Your task to perform on an android device: change notifications settings Image 0: 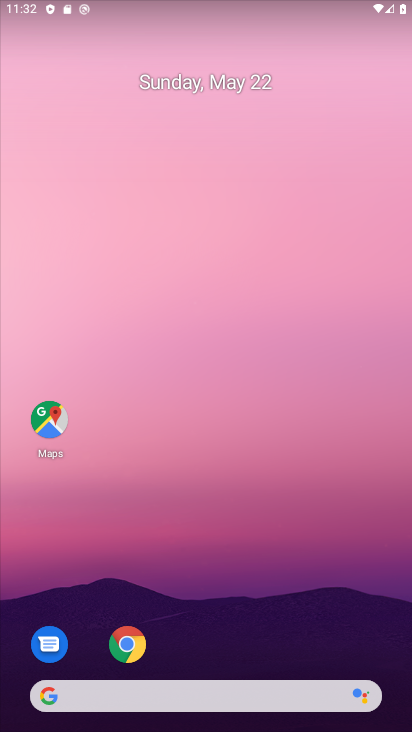
Step 0: drag from (344, 638) to (343, 1)
Your task to perform on an android device: change notifications settings Image 1: 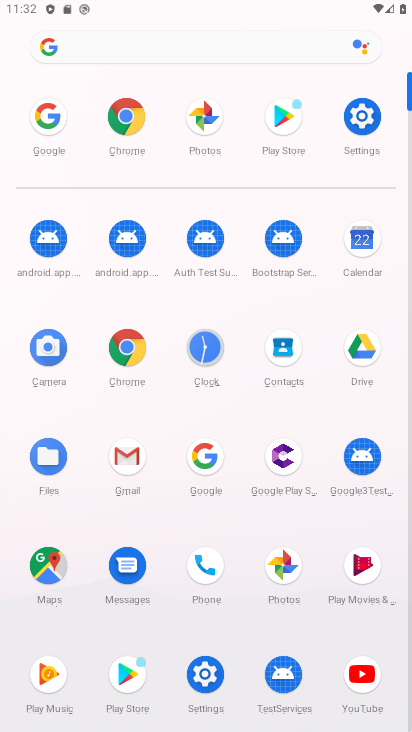
Step 1: click (376, 115)
Your task to perform on an android device: change notifications settings Image 2: 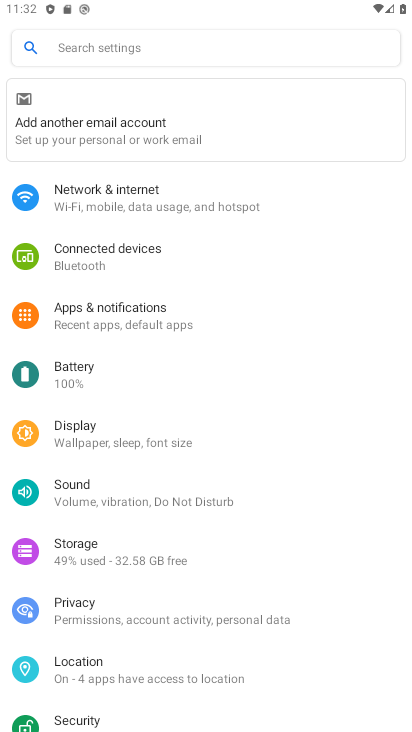
Step 2: click (161, 304)
Your task to perform on an android device: change notifications settings Image 3: 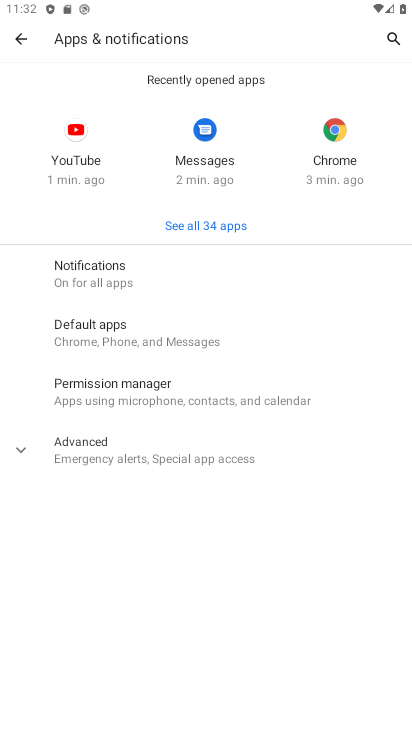
Step 3: click (157, 289)
Your task to perform on an android device: change notifications settings Image 4: 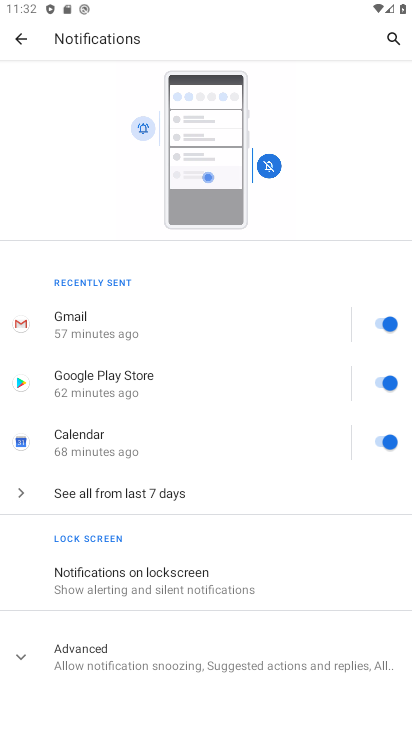
Step 4: task complete